Your task to perform on an android device: Search for Mexican restaurants on Maps Image 0: 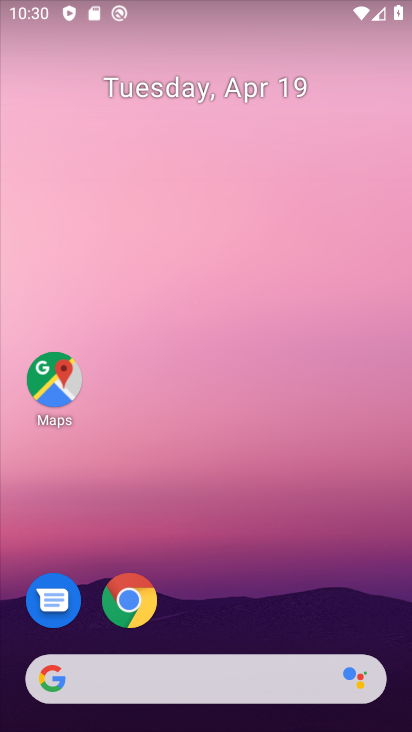
Step 0: click (60, 368)
Your task to perform on an android device: Search for Mexican restaurants on Maps Image 1: 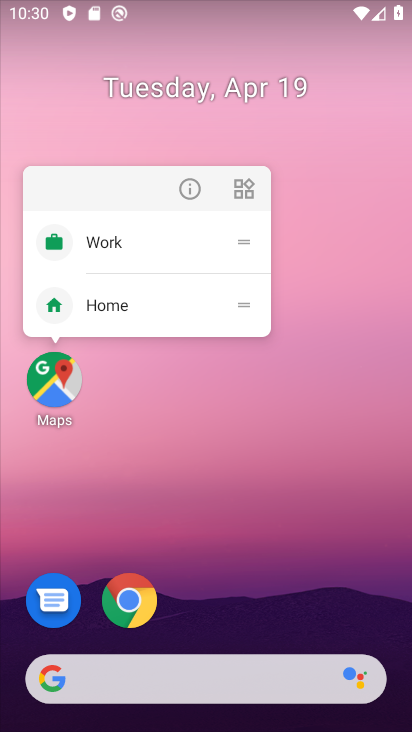
Step 1: click (63, 382)
Your task to perform on an android device: Search for Mexican restaurants on Maps Image 2: 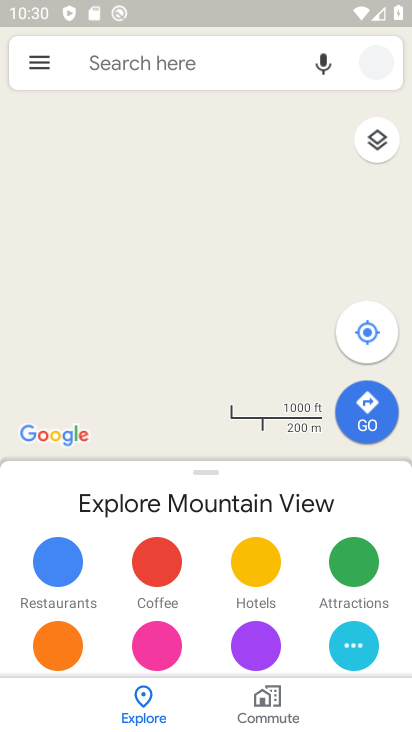
Step 2: click (168, 57)
Your task to perform on an android device: Search for Mexican restaurants on Maps Image 3: 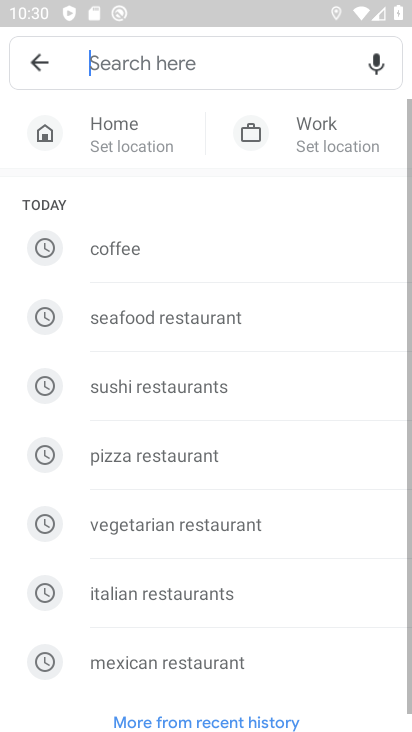
Step 3: click (175, 61)
Your task to perform on an android device: Search for Mexican restaurants on Maps Image 4: 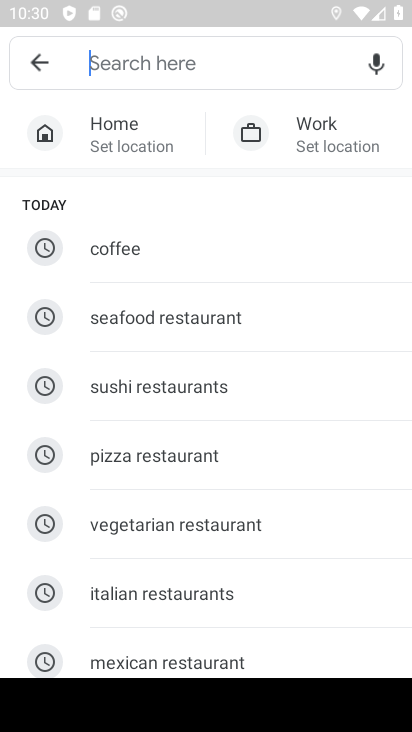
Step 4: type "mexican restaurants"
Your task to perform on an android device: Search for Mexican restaurants on Maps Image 5: 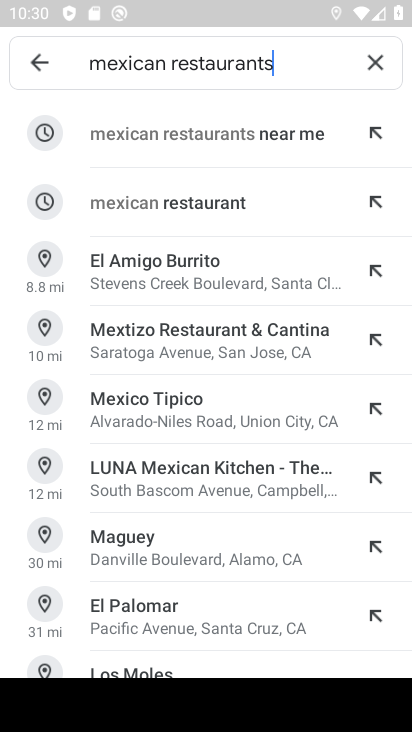
Step 5: click (191, 128)
Your task to perform on an android device: Search for Mexican restaurants on Maps Image 6: 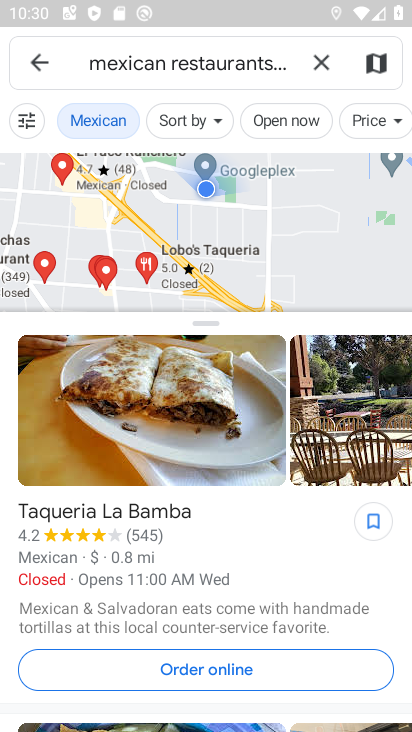
Step 6: task complete